Your task to perform on an android device: check data usage Image 0: 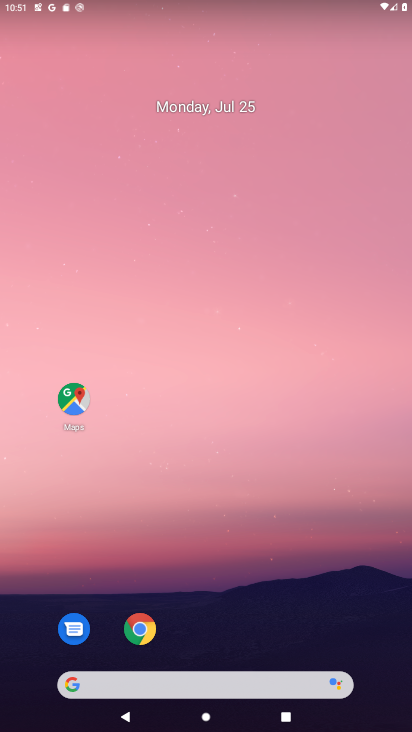
Step 0: drag from (146, 6) to (191, 568)
Your task to perform on an android device: check data usage Image 1: 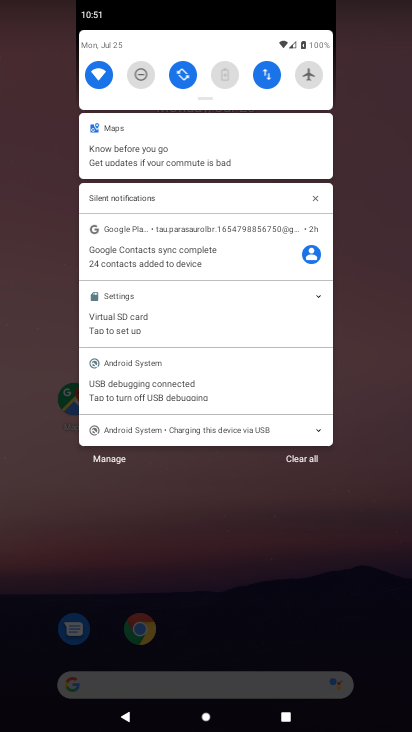
Step 1: click (260, 79)
Your task to perform on an android device: check data usage Image 2: 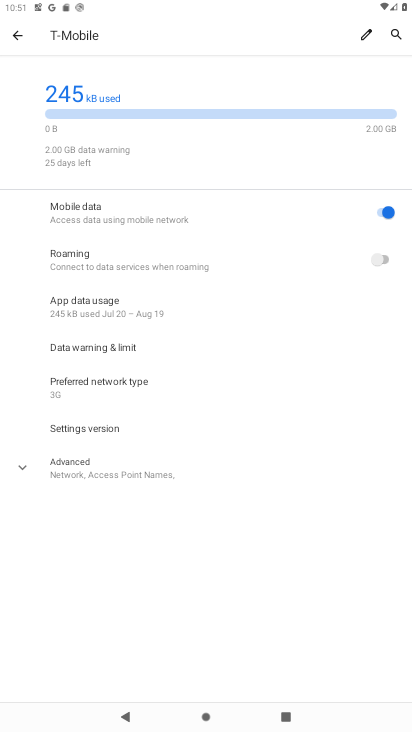
Step 2: click (260, 79)
Your task to perform on an android device: check data usage Image 3: 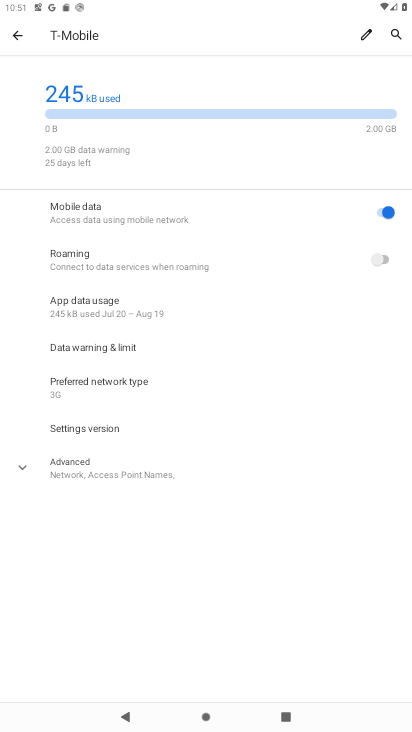
Step 3: task complete